Your task to perform on an android device: What's on my calendar tomorrow? Image 0: 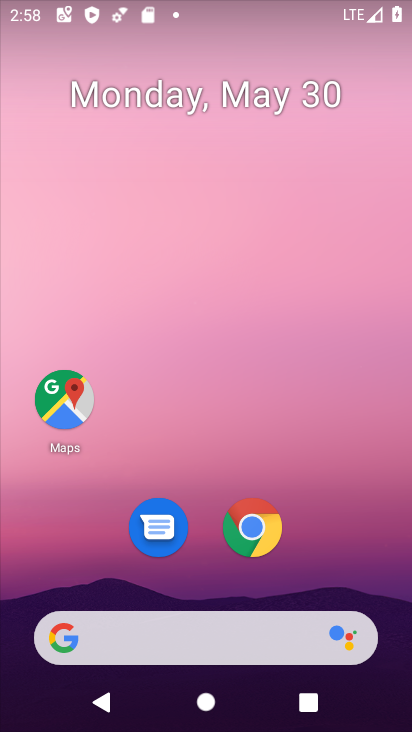
Step 0: drag from (324, 551) to (305, 173)
Your task to perform on an android device: What's on my calendar tomorrow? Image 1: 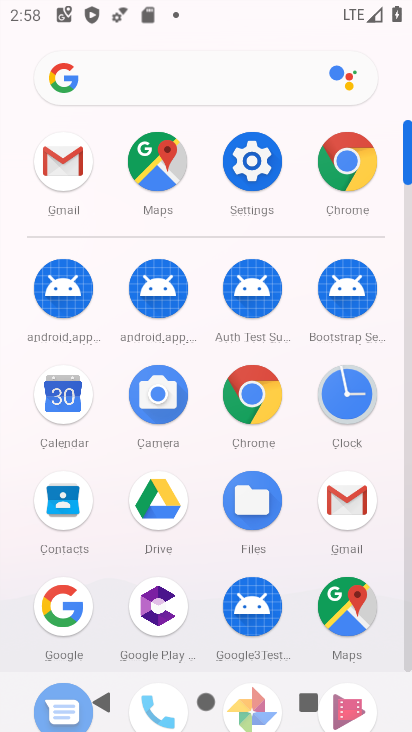
Step 1: click (64, 400)
Your task to perform on an android device: What's on my calendar tomorrow? Image 2: 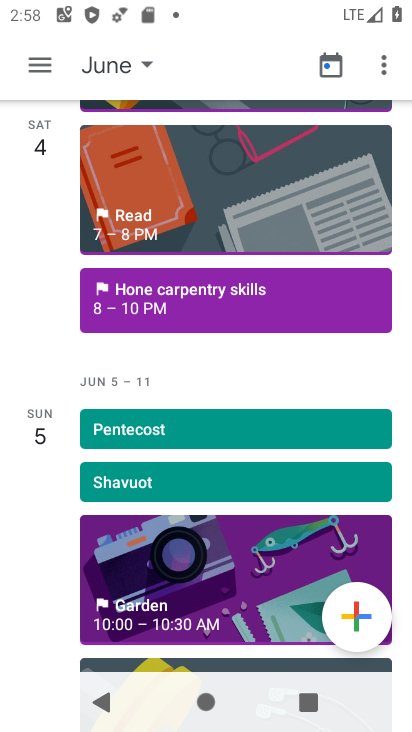
Step 2: click (123, 58)
Your task to perform on an android device: What's on my calendar tomorrow? Image 3: 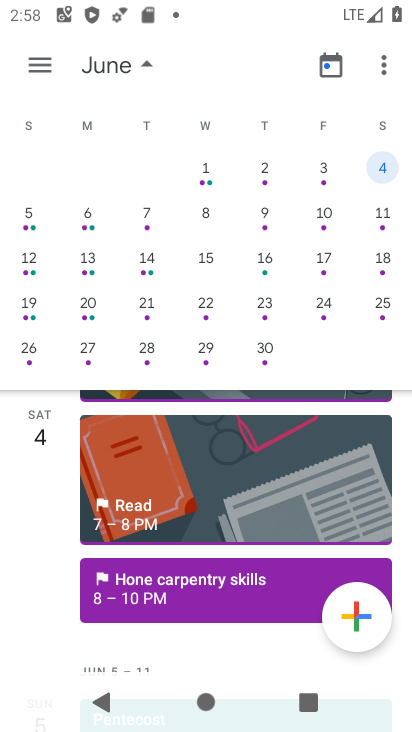
Step 3: drag from (50, 254) to (384, 294)
Your task to perform on an android device: What's on my calendar tomorrow? Image 4: 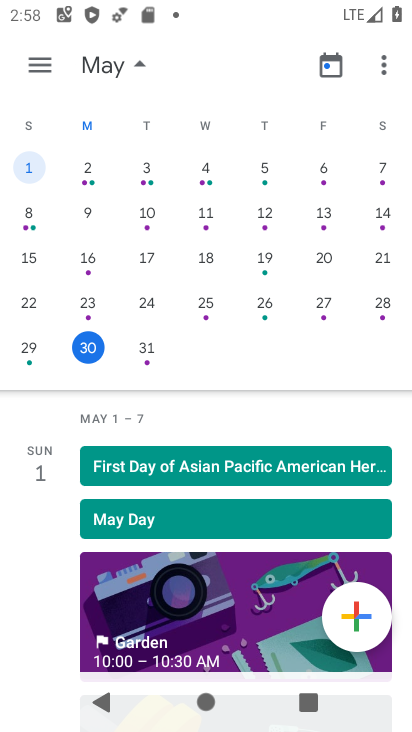
Step 4: click (150, 347)
Your task to perform on an android device: What's on my calendar tomorrow? Image 5: 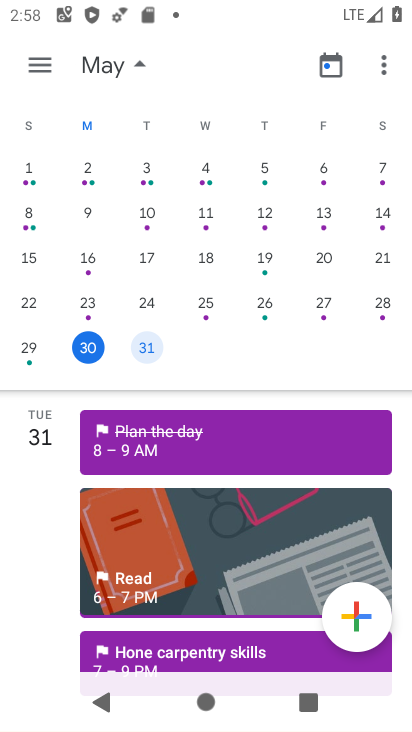
Step 5: task complete